Your task to perform on an android device: open app "Fetch Rewards" (install if not already installed) and go to login screen Image 0: 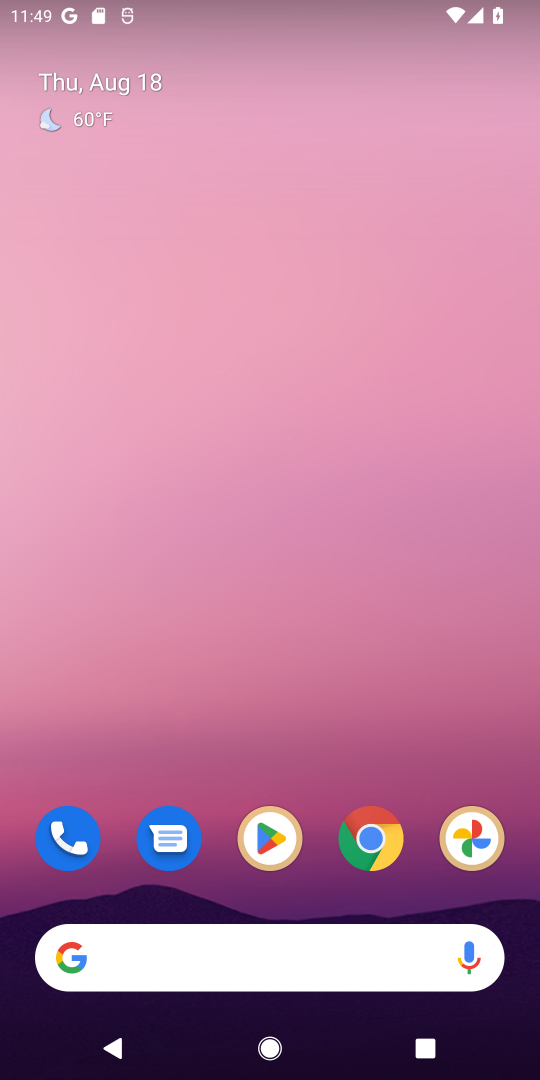
Step 0: click (281, 827)
Your task to perform on an android device: open app "Fetch Rewards" (install if not already installed) and go to login screen Image 1: 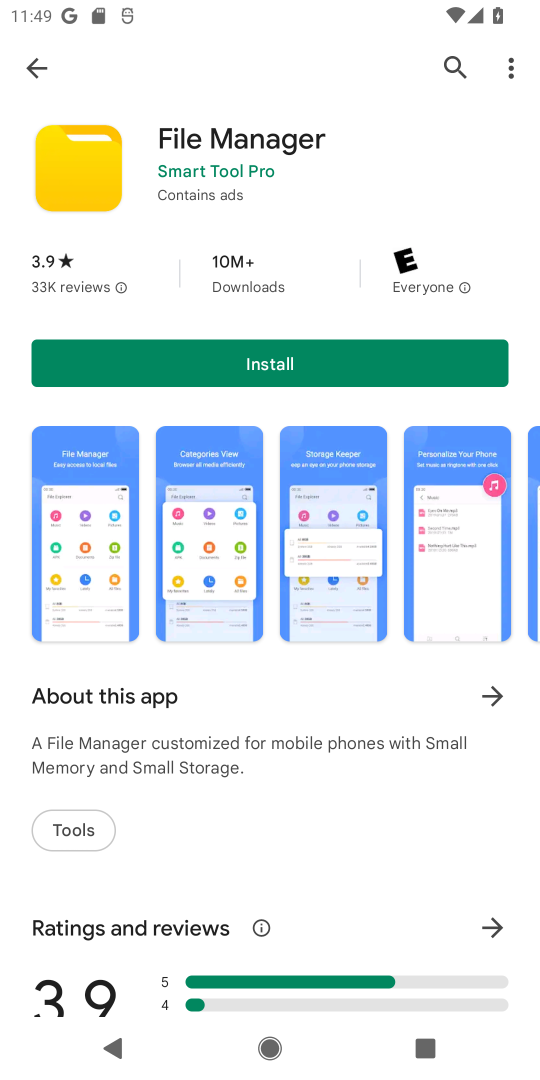
Step 1: click (449, 56)
Your task to perform on an android device: open app "Fetch Rewards" (install if not already installed) and go to login screen Image 2: 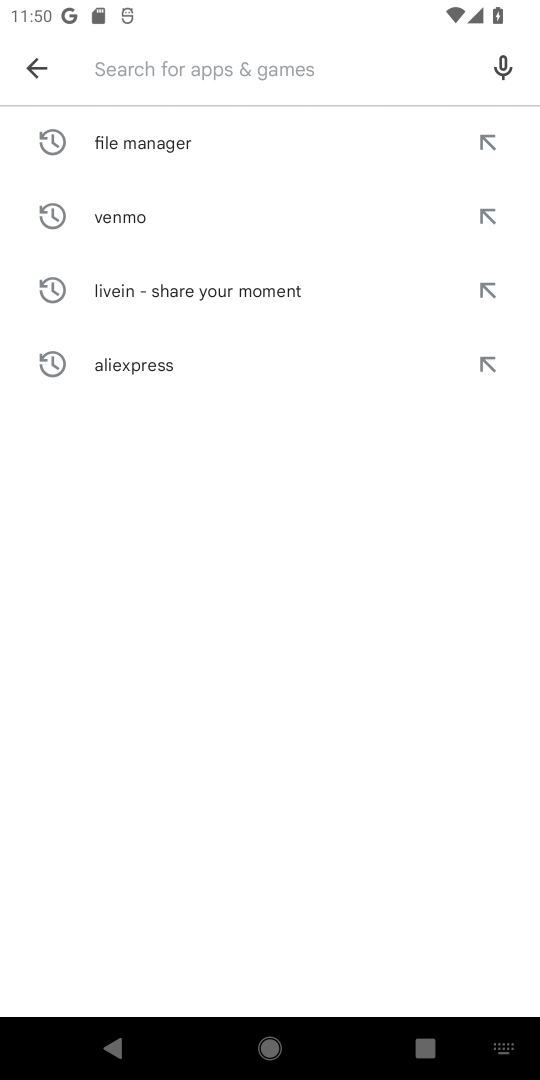
Step 2: type "Fetch Rewards"
Your task to perform on an android device: open app "Fetch Rewards" (install if not already installed) and go to login screen Image 3: 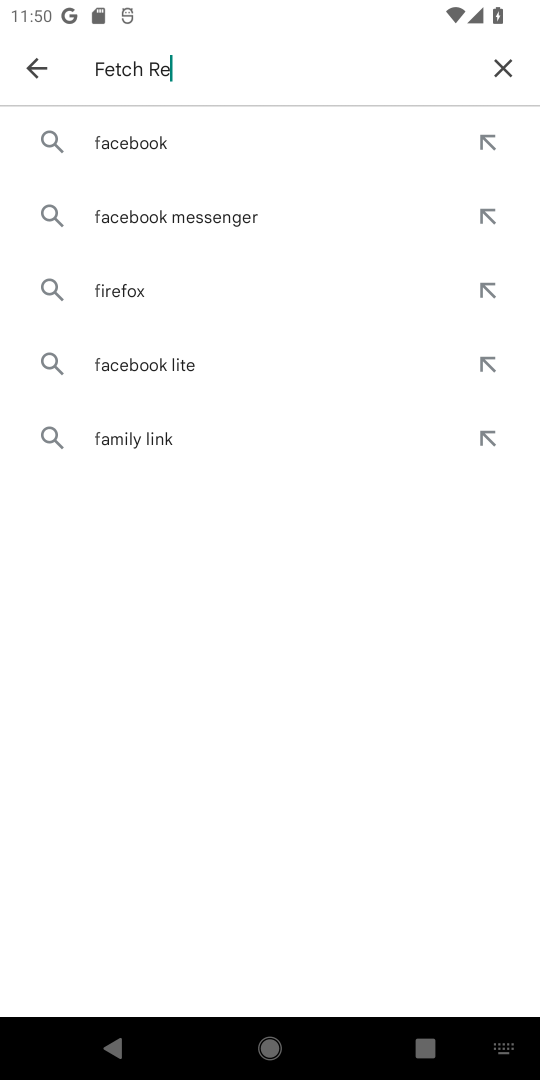
Step 3: type ""
Your task to perform on an android device: open app "Fetch Rewards" (install if not already installed) and go to login screen Image 4: 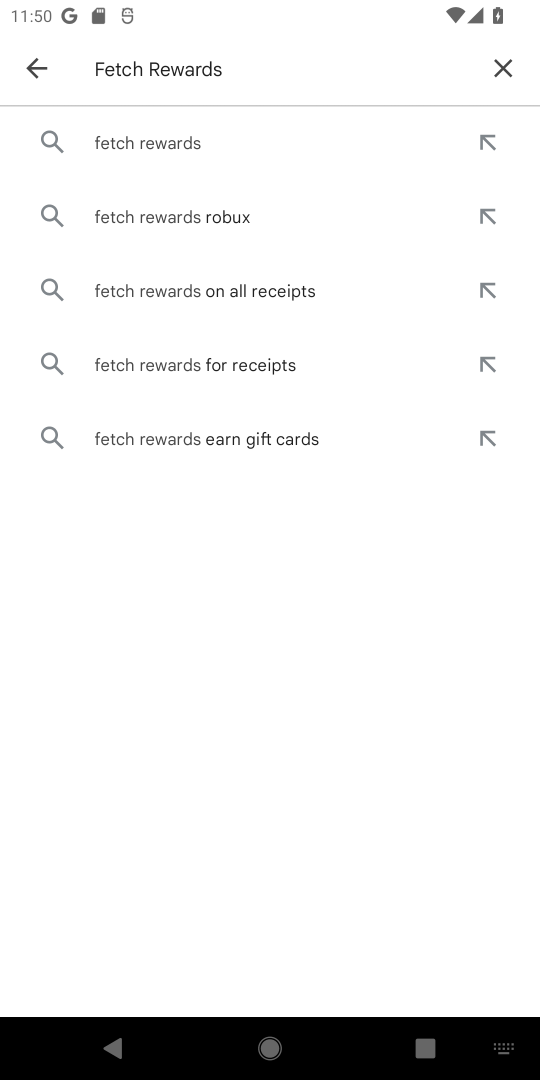
Step 4: click (175, 150)
Your task to perform on an android device: open app "Fetch Rewards" (install if not already installed) and go to login screen Image 5: 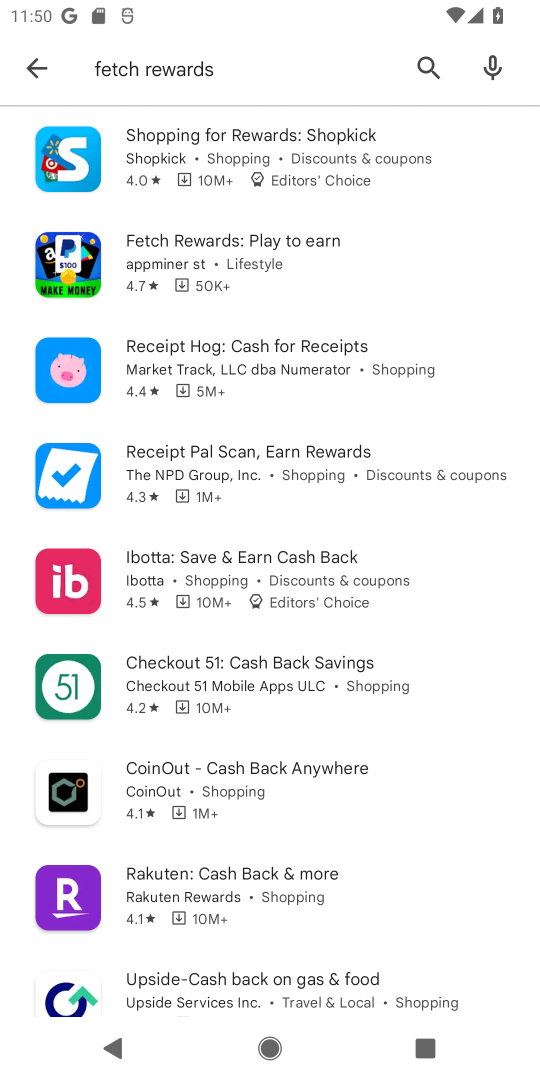
Step 5: task complete